Your task to perform on an android device: Search for pizza restaurants on Maps Image 0: 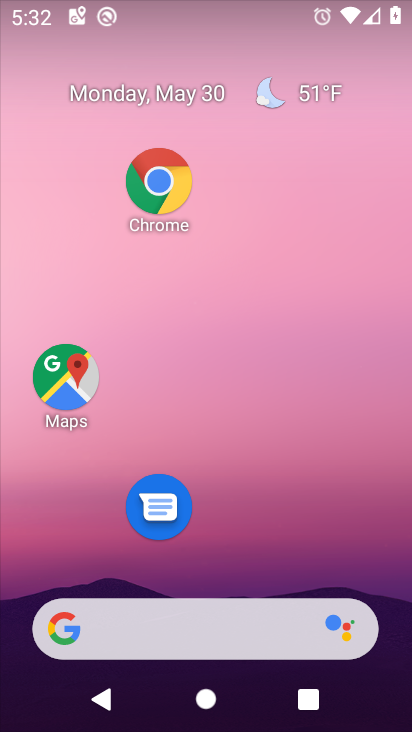
Step 0: click (59, 390)
Your task to perform on an android device: Search for pizza restaurants on Maps Image 1: 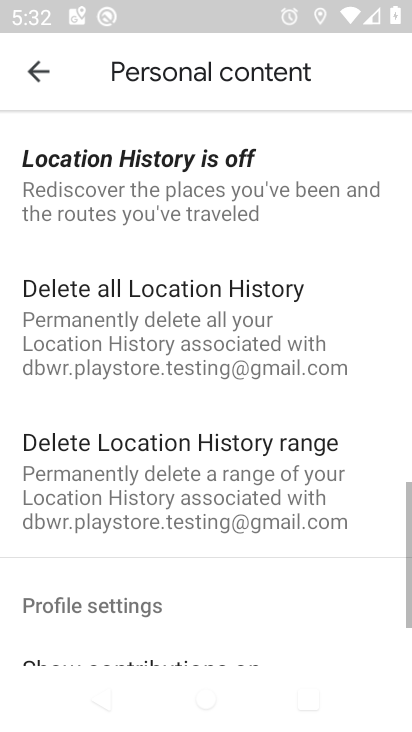
Step 1: click (42, 78)
Your task to perform on an android device: Search for pizza restaurants on Maps Image 2: 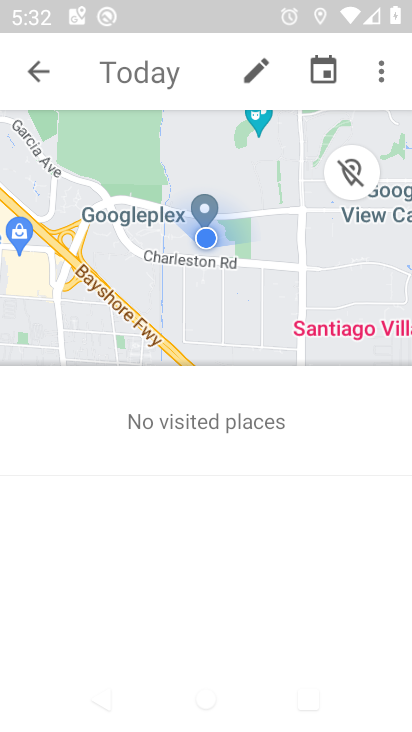
Step 2: click (43, 80)
Your task to perform on an android device: Search for pizza restaurants on Maps Image 3: 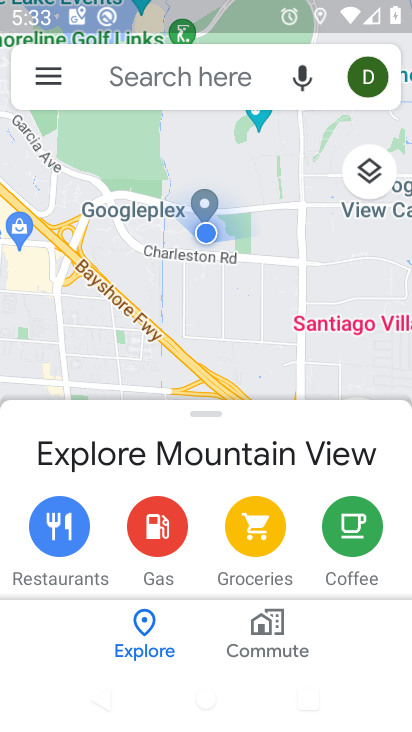
Step 3: click (140, 67)
Your task to perform on an android device: Search for pizza restaurants on Maps Image 4: 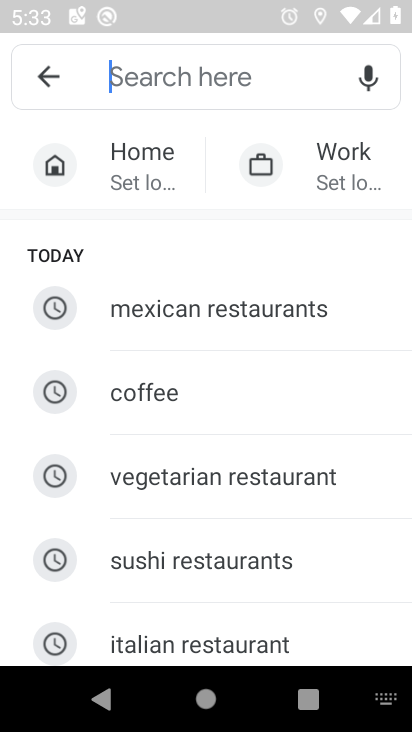
Step 4: type "pizza restaurants "
Your task to perform on an android device: Search for pizza restaurants on Maps Image 5: 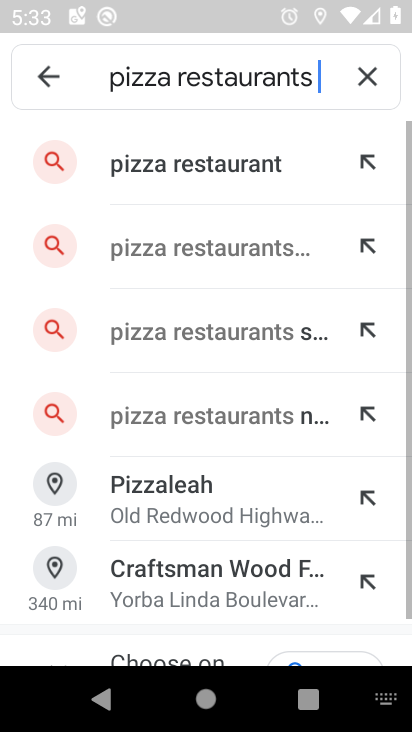
Step 5: click (91, 156)
Your task to perform on an android device: Search for pizza restaurants on Maps Image 6: 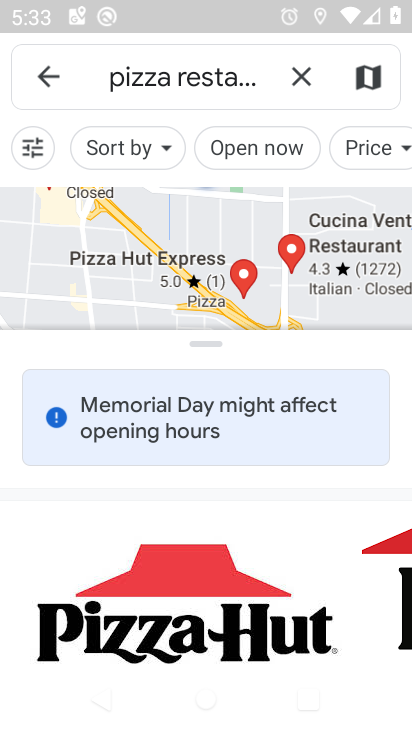
Step 6: task complete